Your task to perform on an android device: search for starred emails in the gmail app Image 0: 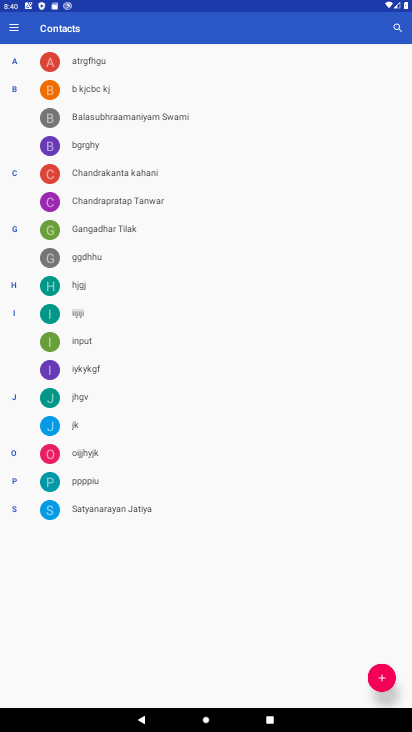
Step 0: press home button
Your task to perform on an android device: search for starred emails in the gmail app Image 1: 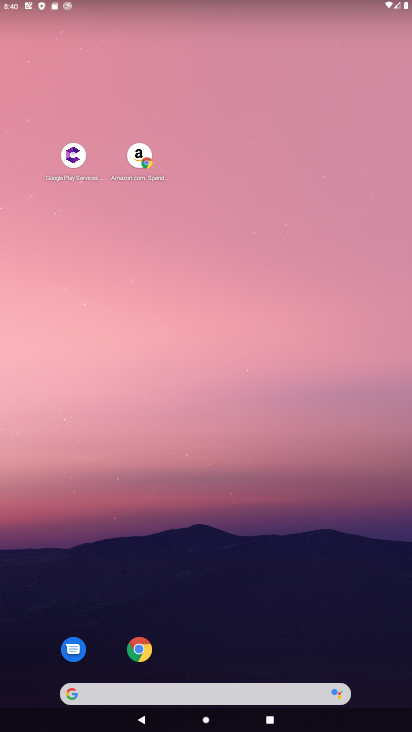
Step 1: drag from (182, 691) to (232, 3)
Your task to perform on an android device: search for starred emails in the gmail app Image 2: 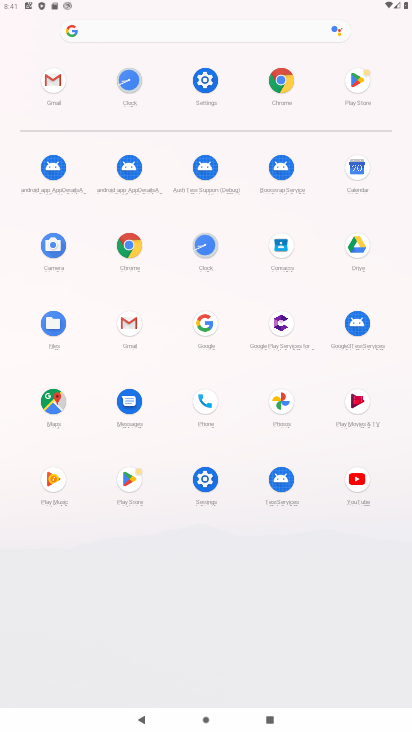
Step 2: click (53, 79)
Your task to perform on an android device: search for starred emails in the gmail app Image 3: 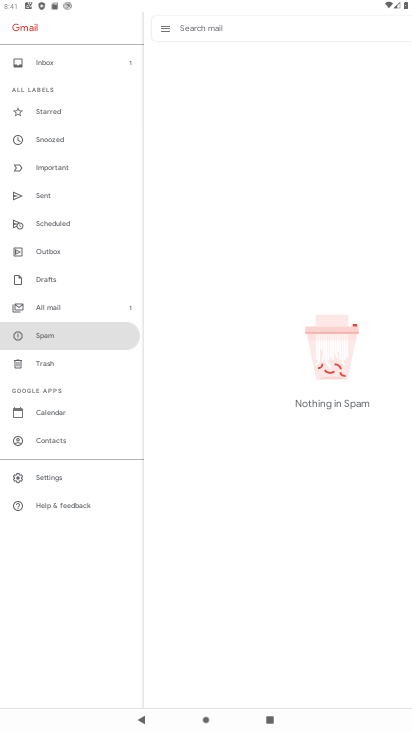
Step 3: click (56, 110)
Your task to perform on an android device: search for starred emails in the gmail app Image 4: 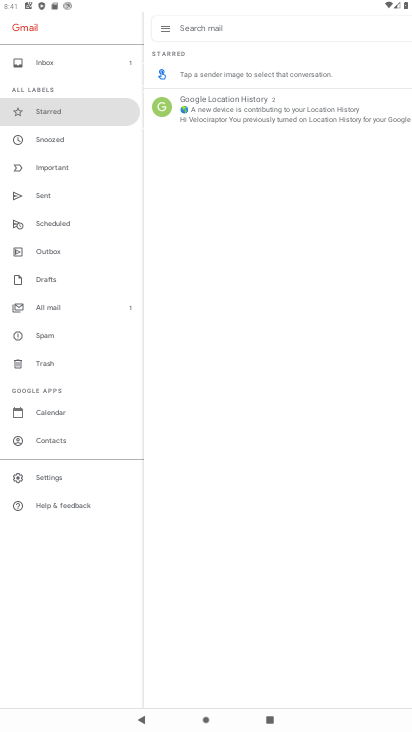
Step 4: click (295, 116)
Your task to perform on an android device: search for starred emails in the gmail app Image 5: 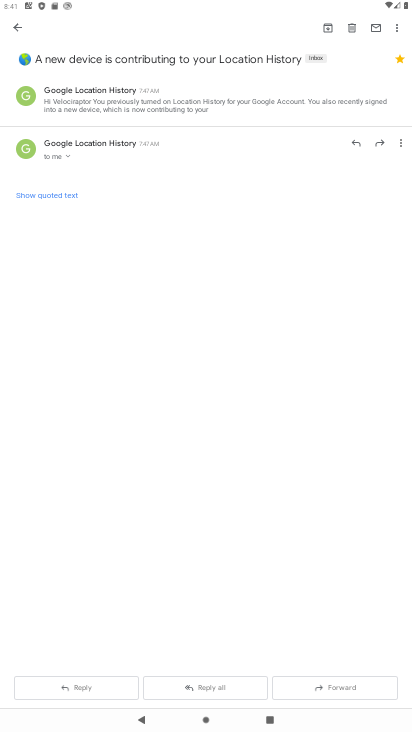
Step 5: task complete